Your task to perform on an android device: Go to Android settings Image 0: 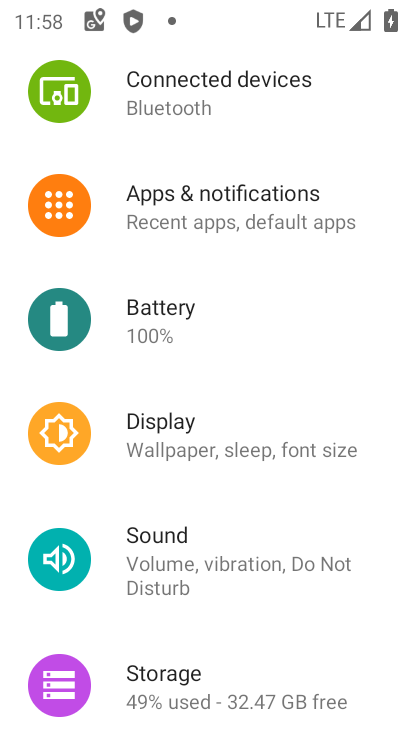
Step 0: drag from (197, 641) to (165, 173)
Your task to perform on an android device: Go to Android settings Image 1: 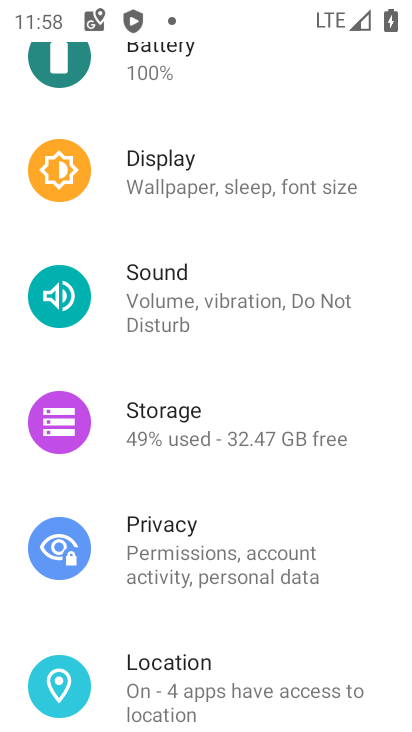
Step 1: drag from (308, 685) to (272, 202)
Your task to perform on an android device: Go to Android settings Image 2: 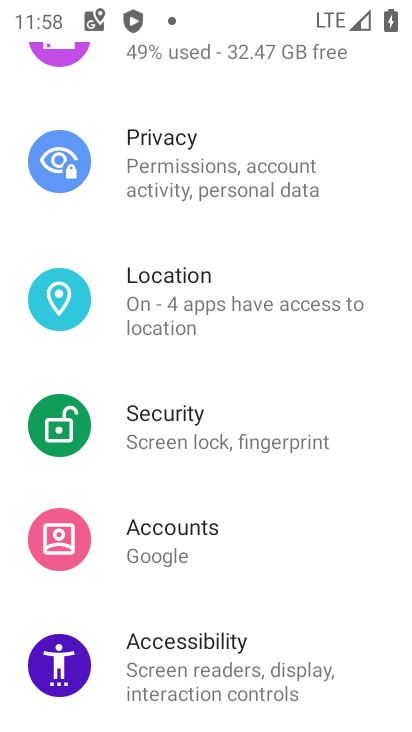
Step 2: drag from (308, 698) to (231, 263)
Your task to perform on an android device: Go to Android settings Image 3: 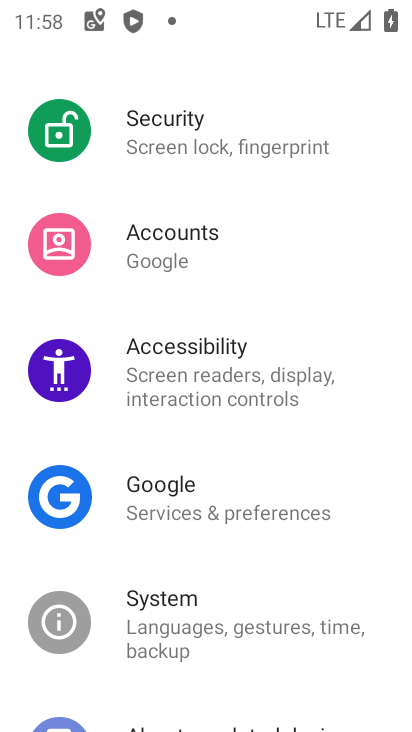
Step 3: drag from (287, 564) to (264, 202)
Your task to perform on an android device: Go to Android settings Image 4: 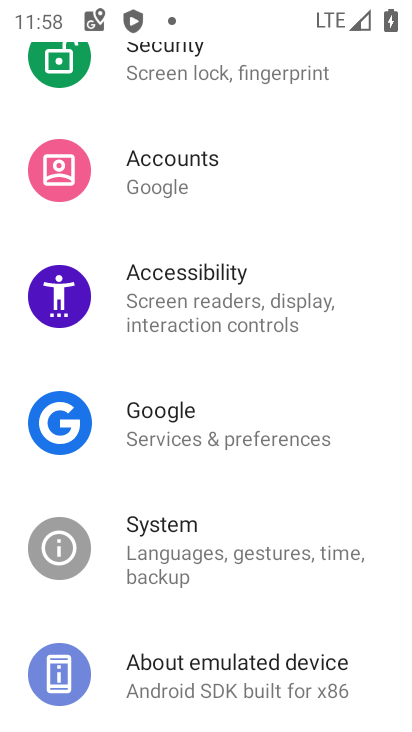
Step 4: drag from (334, 625) to (317, 229)
Your task to perform on an android device: Go to Android settings Image 5: 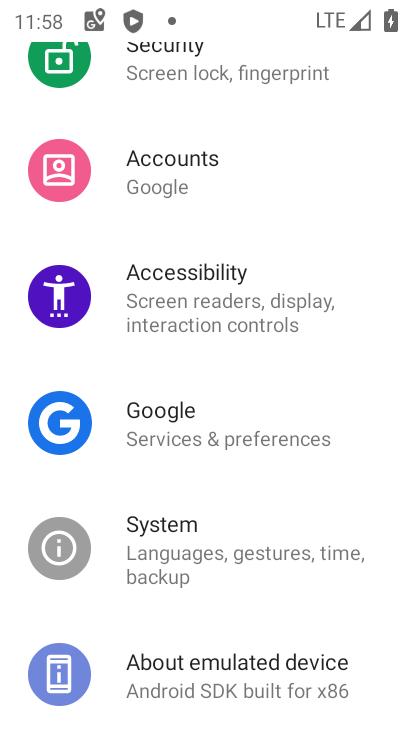
Step 5: click (264, 676)
Your task to perform on an android device: Go to Android settings Image 6: 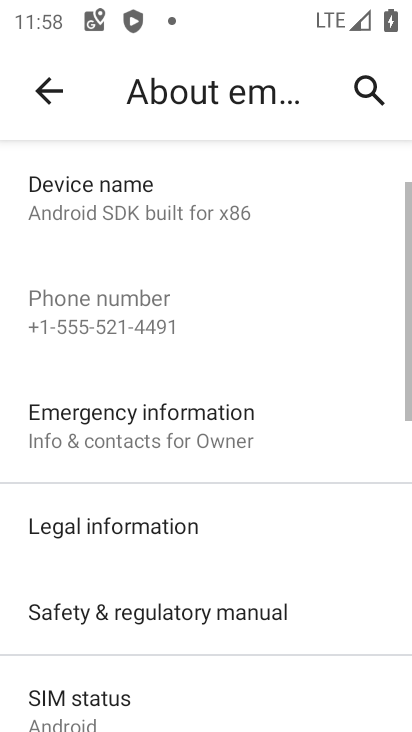
Step 6: task complete